Your task to perform on an android device: Show me popular videos on Youtube Image 0: 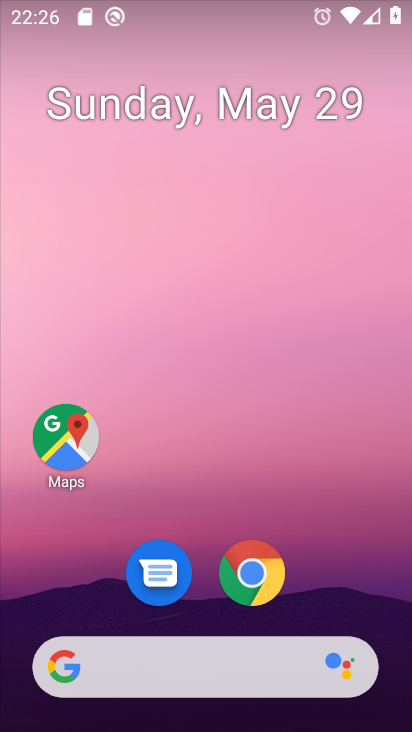
Step 0: drag from (192, 487) to (223, 15)
Your task to perform on an android device: Show me popular videos on Youtube Image 1: 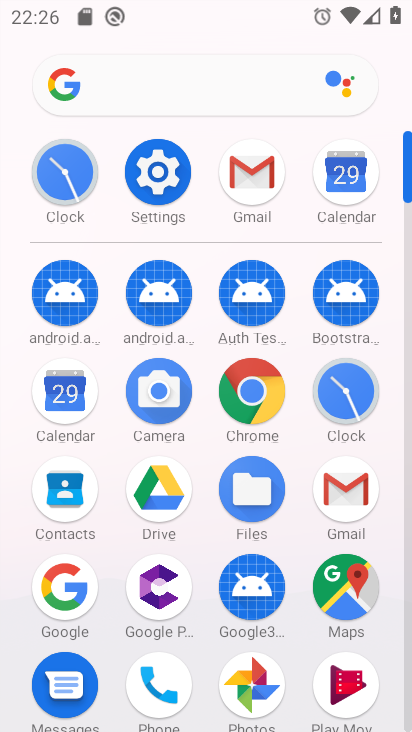
Step 1: drag from (211, 489) to (215, 21)
Your task to perform on an android device: Show me popular videos on Youtube Image 2: 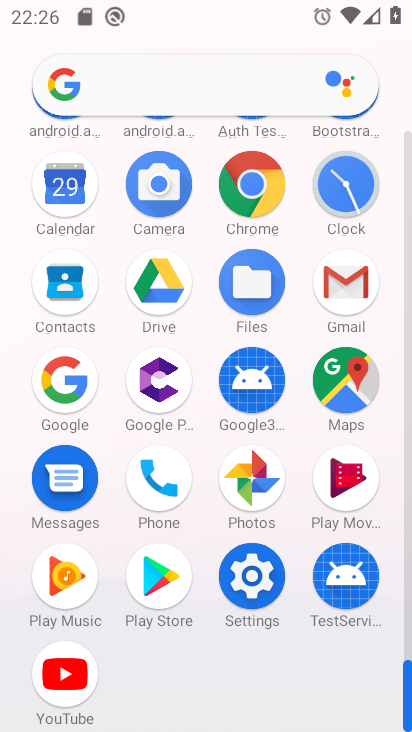
Step 2: click (65, 669)
Your task to perform on an android device: Show me popular videos on Youtube Image 3: 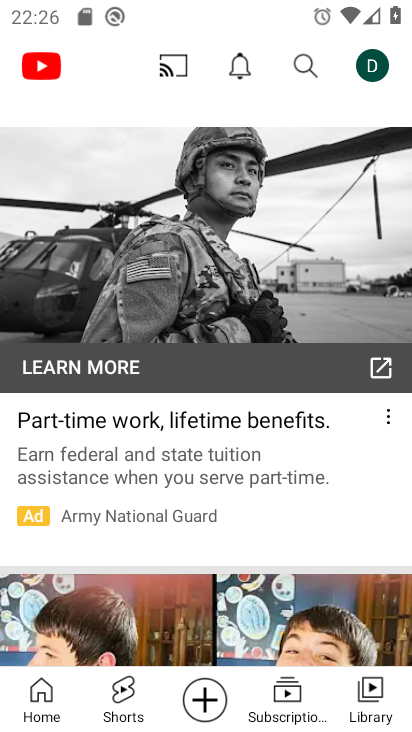
Step 3: click (310, 57)
Your task to perform on an android device: Show me popular videos on Youtube Image 4: 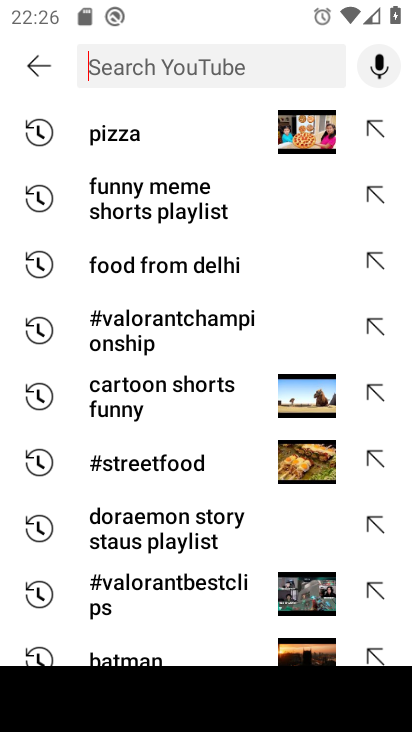
Step 4: type "popular videos"
Your task to perform on an android device: Show me popular videos on Youtube Image 5: 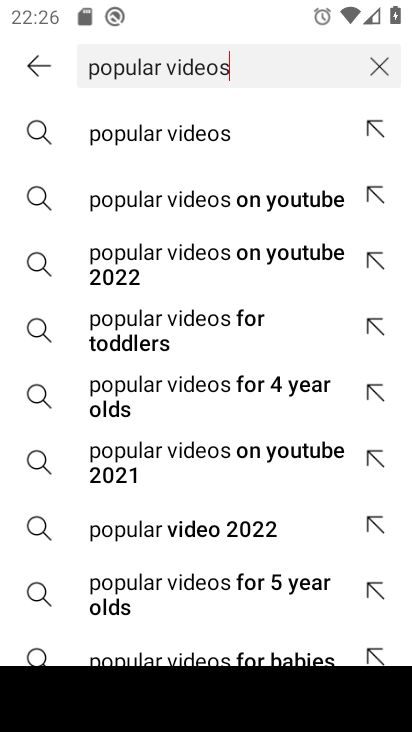
Step 5: click (309, 202)
Your task to perform on an android device: Show me popular videos on Youtube Image 6: 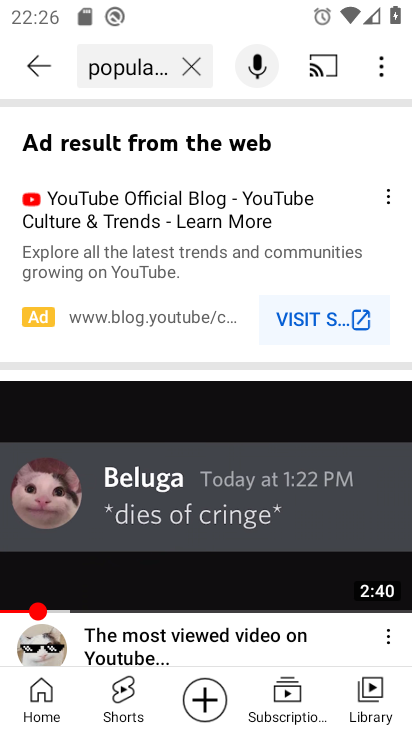
Step 6: task complete